Your task to perform on an android device: find which apps use the phone's location Image 0: 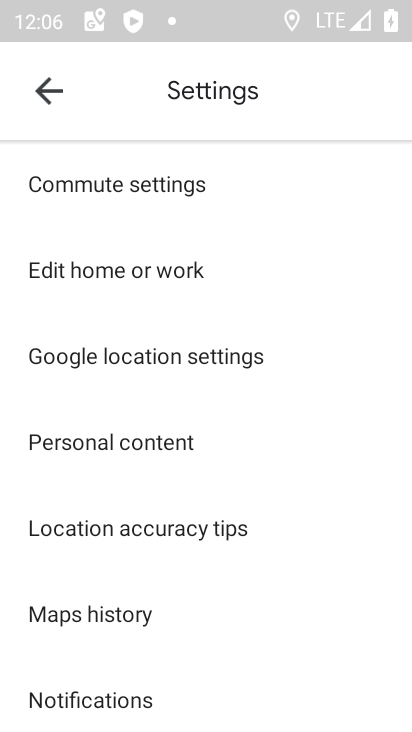
Step 0: press home button
Your task to perform on an android device: find which apps use the phone's location Image 1: 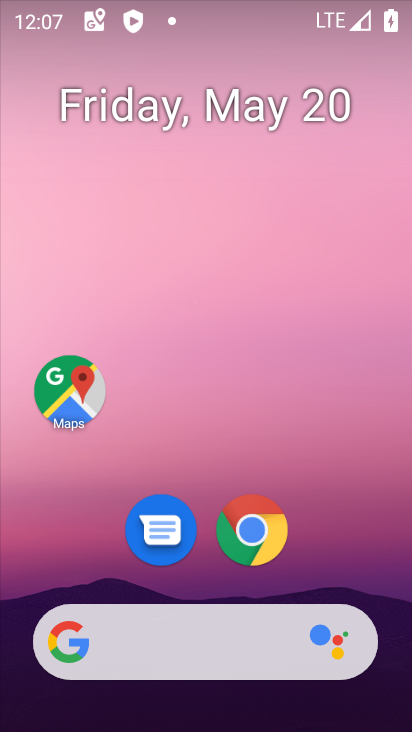
Step 1: drag from (148, 708) to (288, 0)
Your task to perform on an android device: find which apps use the phone's location Image 2: 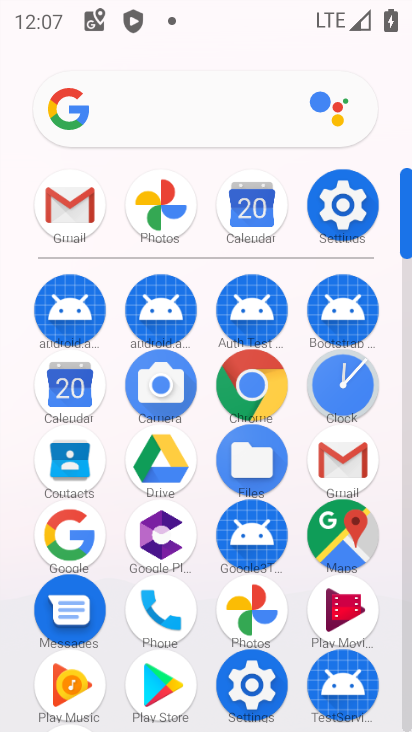
Step 2: click (349, 211)
Your task to perform on an android device: find which apps use the phone's location Image 3: 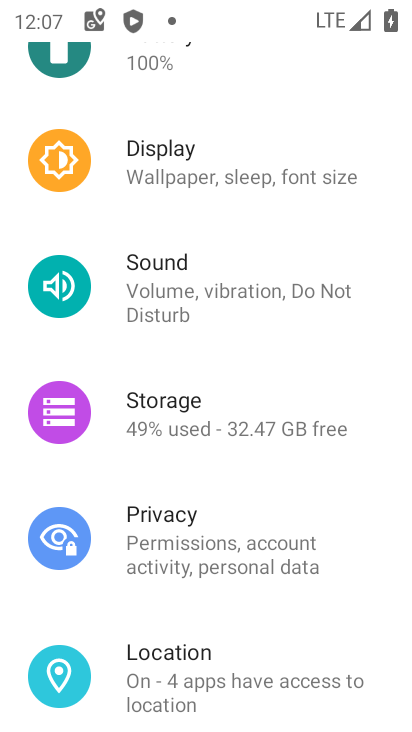
Step 3: click (202, 642)
Your task to perform on an android device: find which apps use the phone's location Image 4: 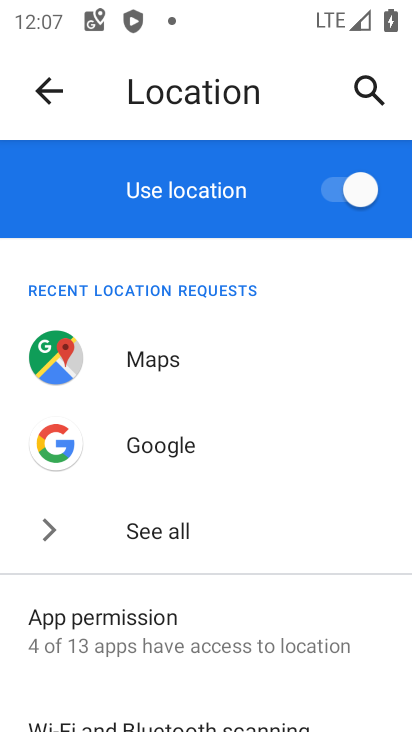
Step 4: click (164, 640)
Your task to perform on an android device: find which apps use the phone's location Image 5: 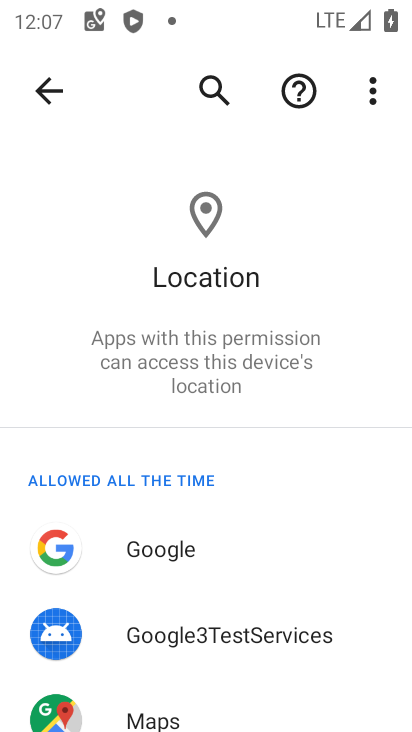
Step 5: task complete